Your task to perform on an android device: Go to Google Image 0: 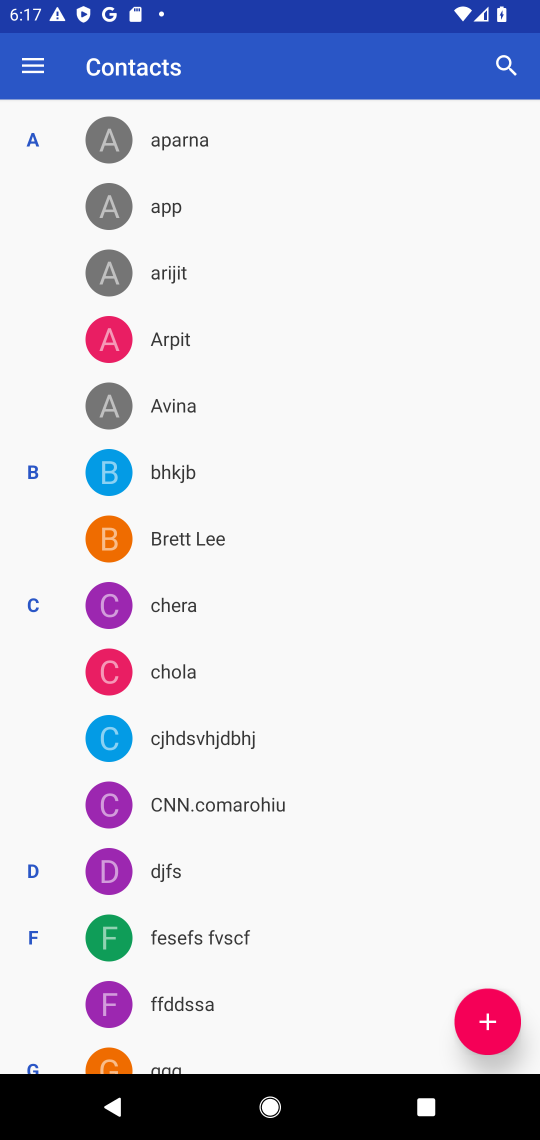
Step 0: press home button
Your task to perform on an android device: Go to Google Image 1: 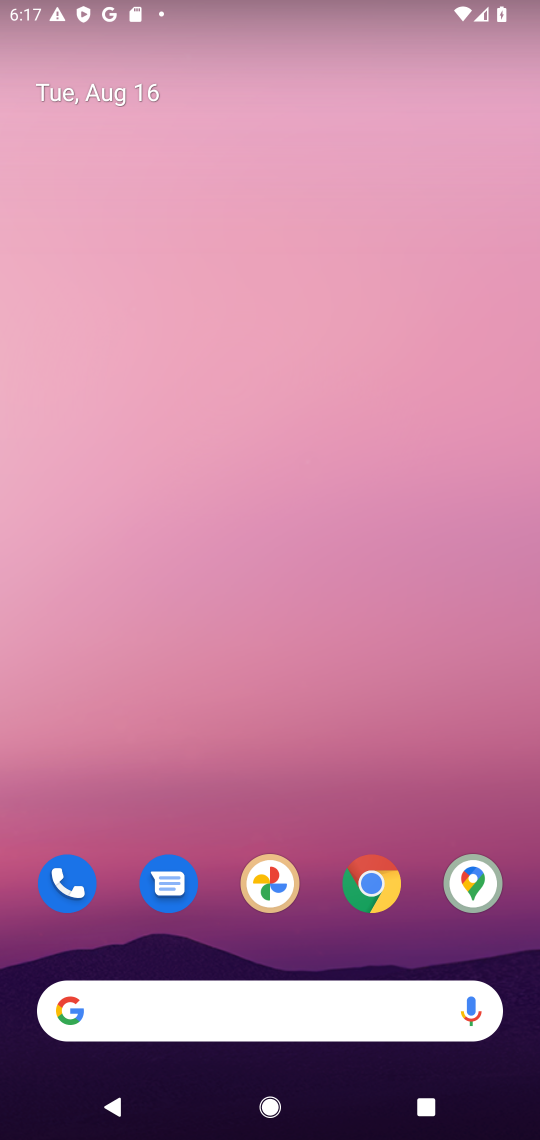
Step 1: drag from (260, 1018) to (294, 289)
Your task to perform on an android device: Go to Google Image 2: 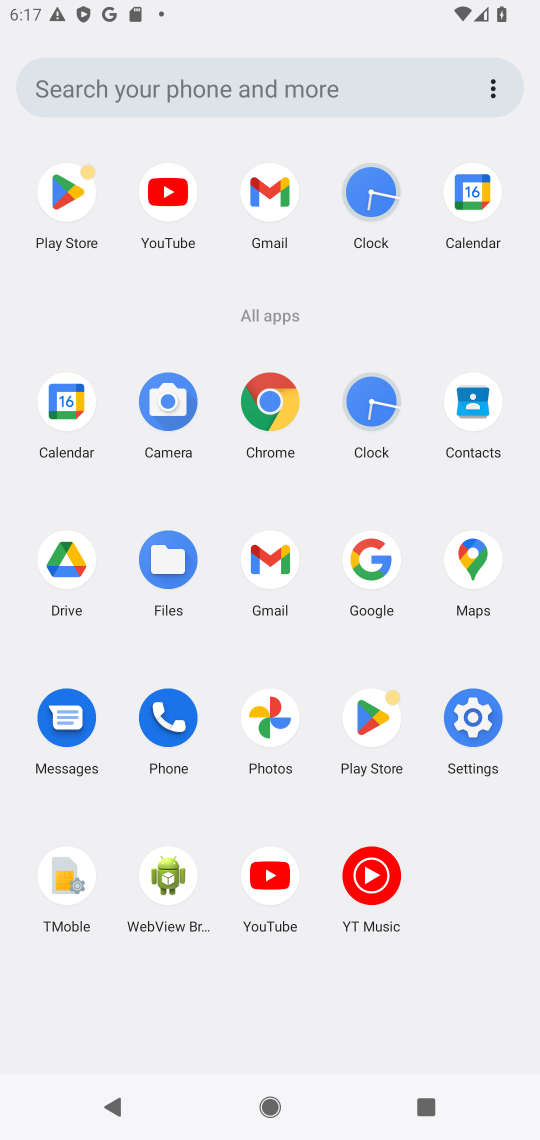
Step 2: click (369, 560)
Your task to perform on an android device: Go to Google Image 3: 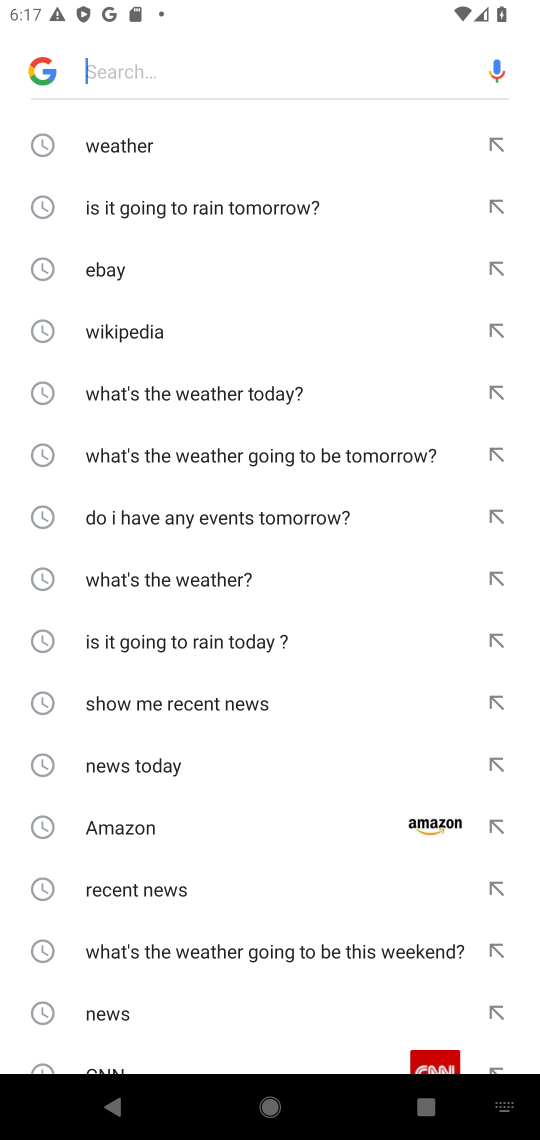
Step 3: task complete